Your task to perform on an android device: Google the capital of Argentina Image 0: 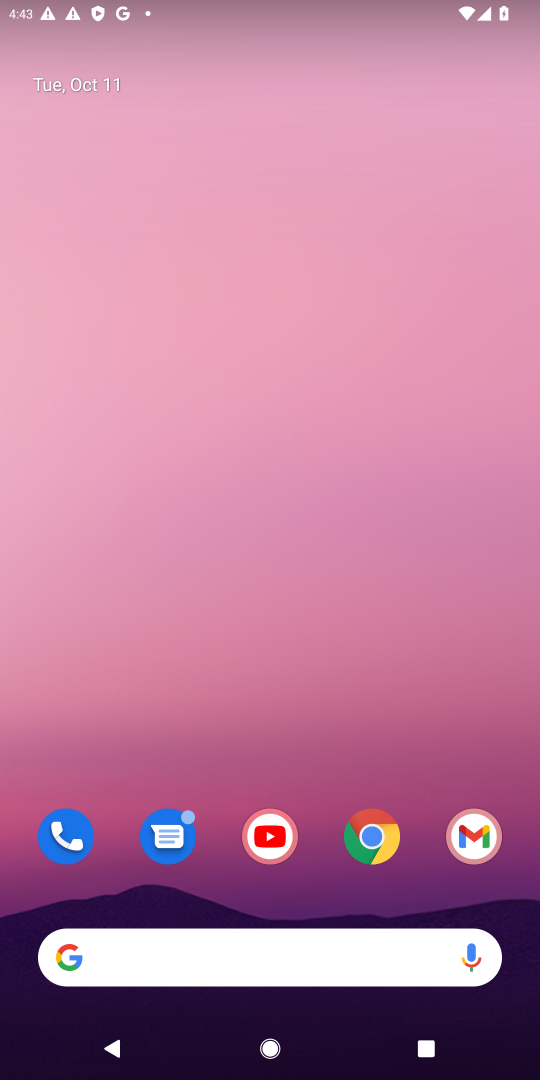
Step 0: click (373, 837)
Your task to perform on an android device: Google the capital of Argentina Image 1: 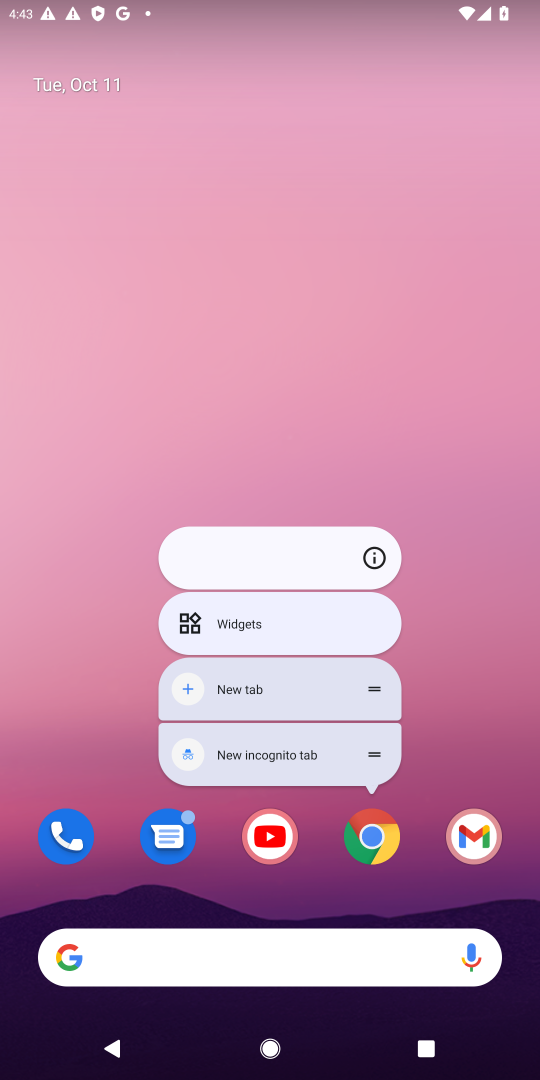
Step 1: click (373, 837)
Your task to perform on an android device: Google the capital of Argentina Image 2: 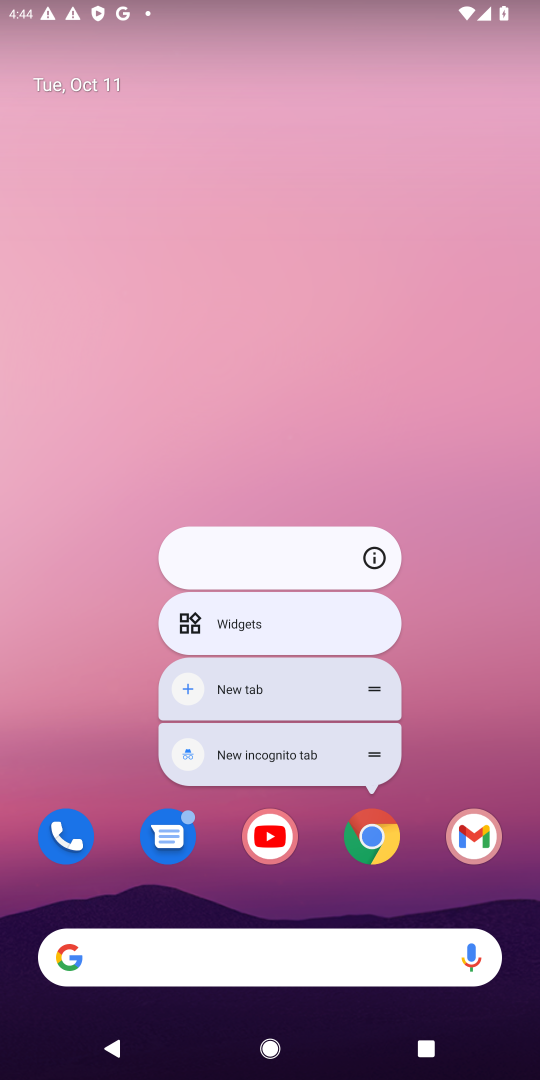
Step 2: click (369, 847)
Your task to perform on an android device: Google the capital of Argentina Image 3: 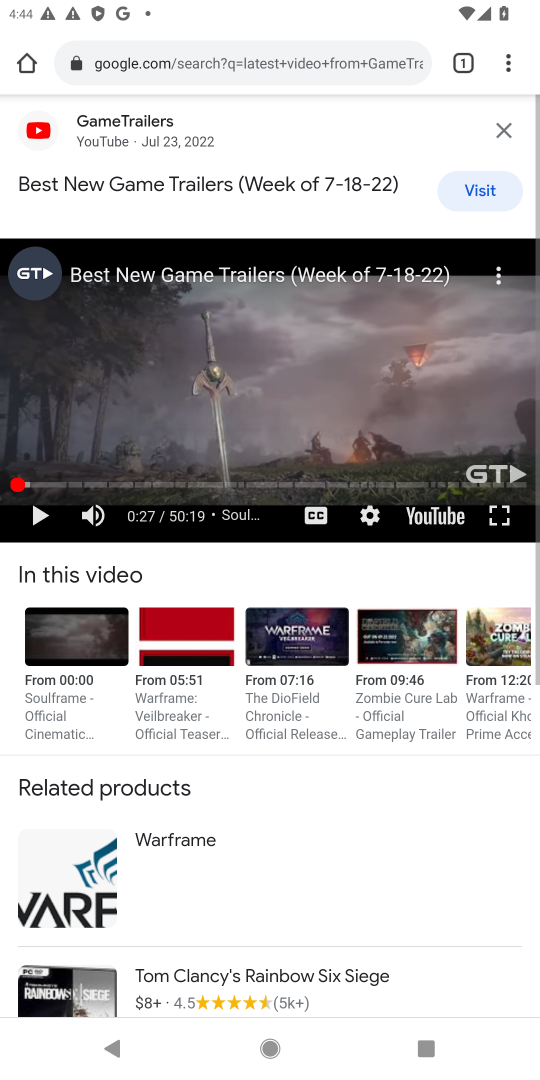
Step 3: click (338, 56)
Your task to perform on an android device: Google the capital of Argentina Image 4: 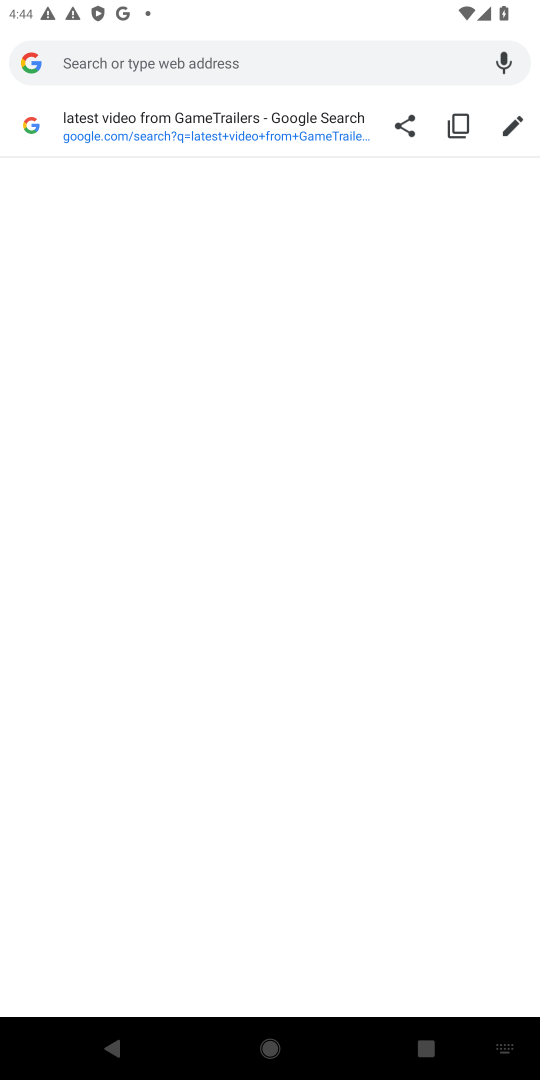
Step 4: type "capital of Argentina"
Your task to perform on an android device: Google the capital of Argentina Image 5: 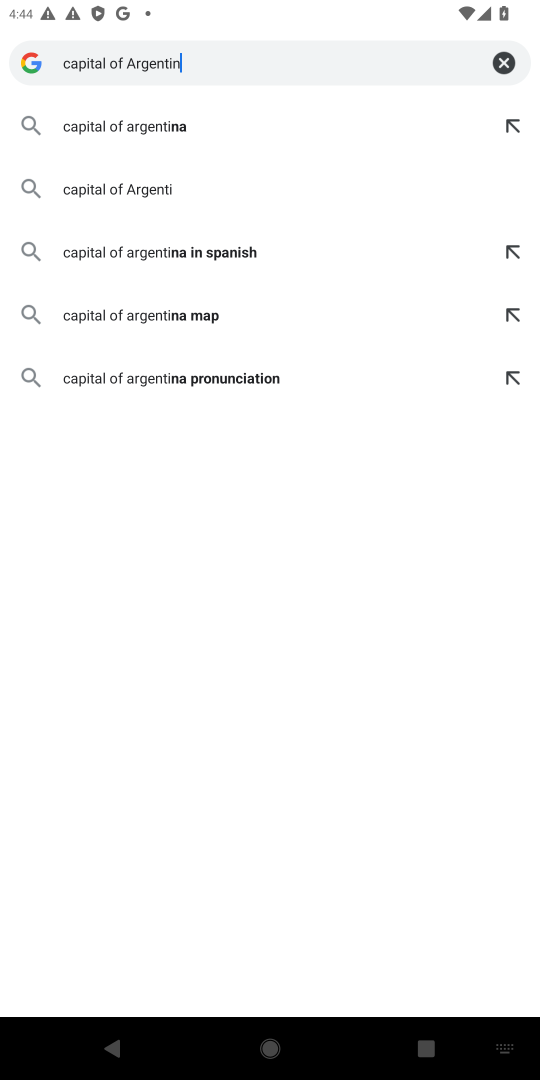
Step 5: press enter
Your task to perform on an android device: Google the capital of Argentina Image 6: 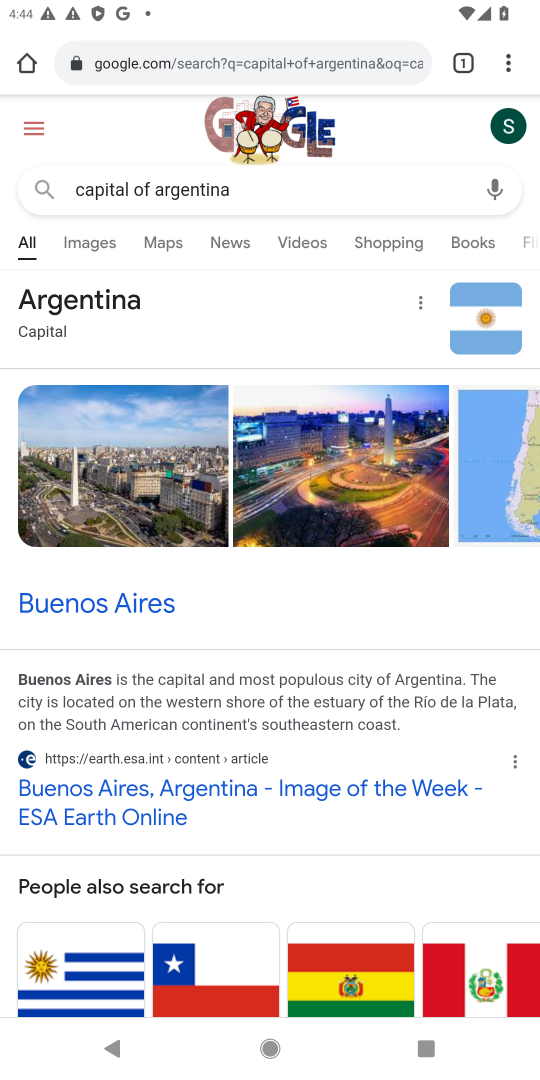
Step 6: task complete